Your task to perform on an android device: Show me popular games on the Play Store Image 0: 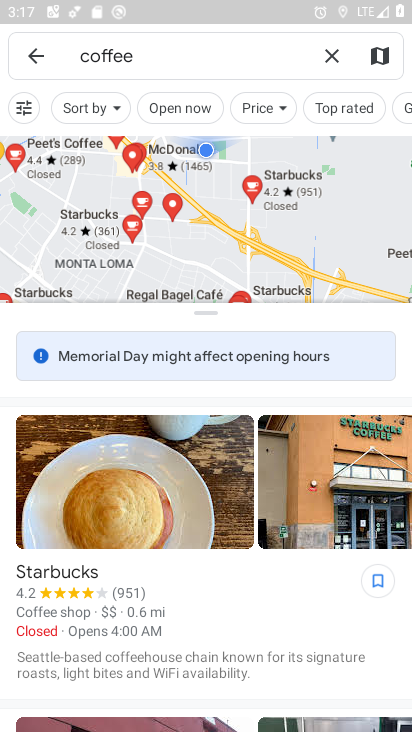
Step 0: press home button
Your task to perform on an android device: Show me popular games on the Play Store Image 1: 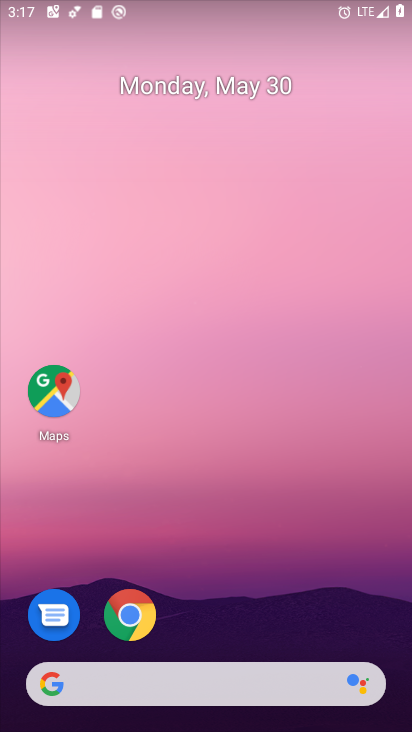
Step 1: drag from (262, 527) to (294, 20)
Your task to perform on an android device: Show me popular games on the Play Store Image 2: 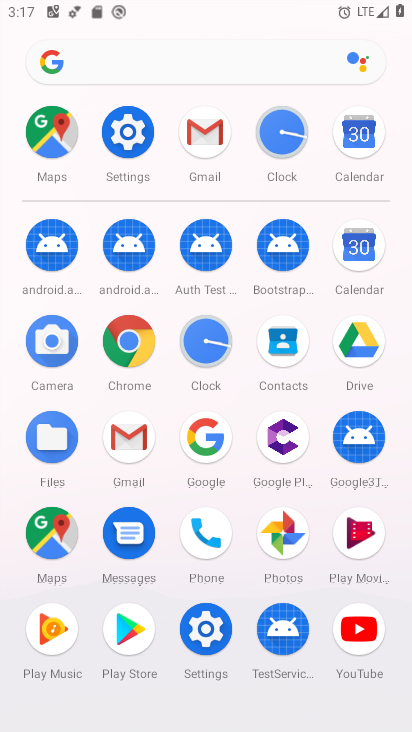
Step 2: click (139, 620)
Your task to perform on an android device: Show me popular games on the Play Store Image 3: 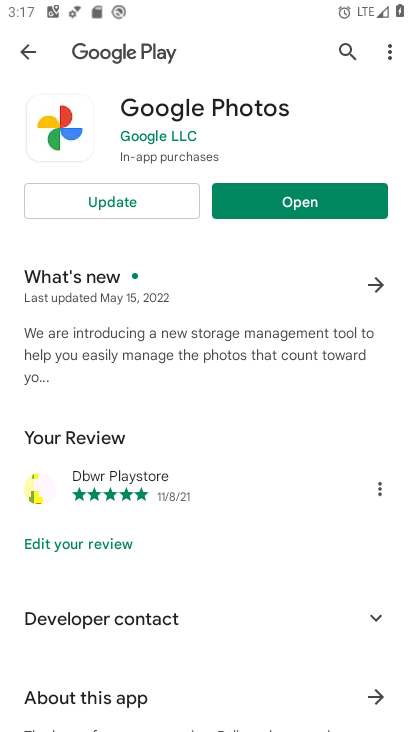
Step 3: click (18, 40)
Your task to perform on an android device: Show me popular games on the Play Store Image 4: 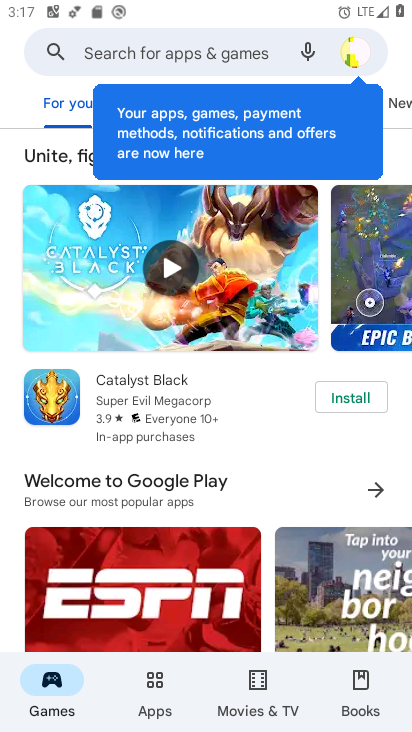
Step 4: click (161, 671)
Your task to perform on an android device: Show me popular games on the Play Store Image 5: 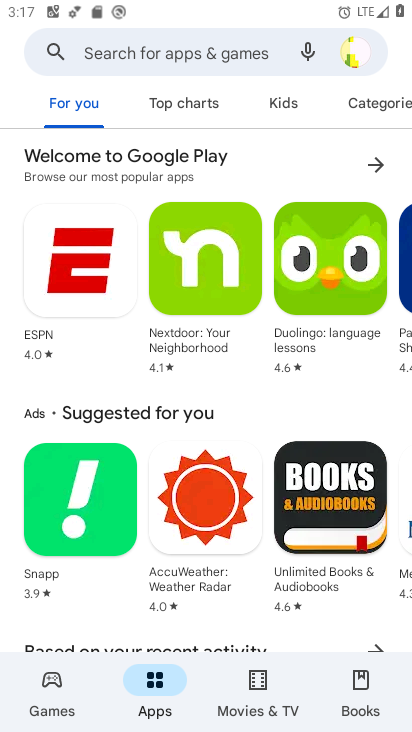
Step 5: click (52, 691)
Your task to perform on an android device: Show me popular games on the Play Store Image 6: 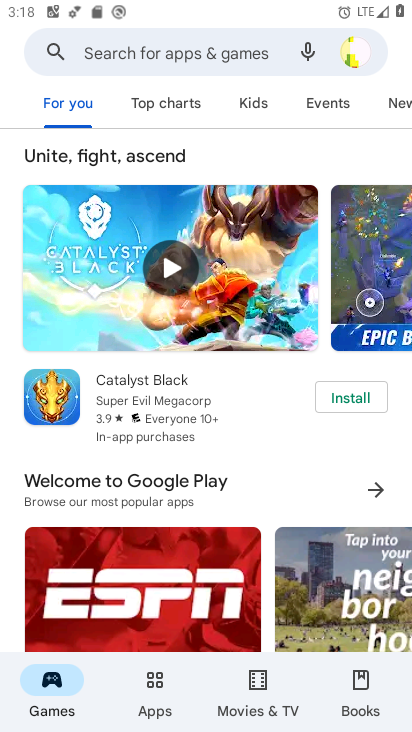
Step 6: click (190, 38)
Your task to perform on an android device: Show me popular games on the Play Store Image 7: 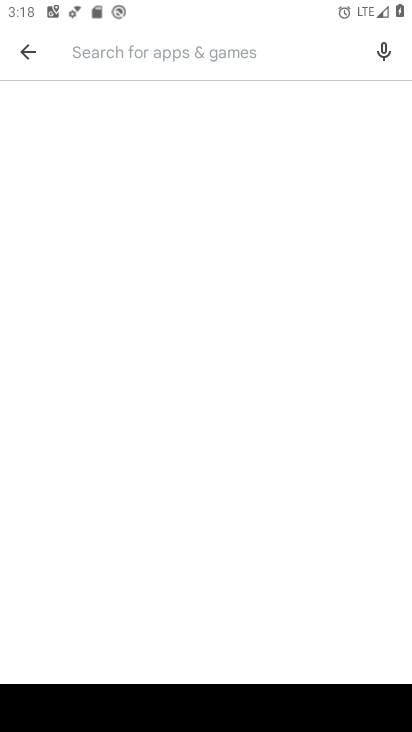
Step 7: type "popular"
Your task to perform on an android device: Show me popular games on the Play Store Image 8: 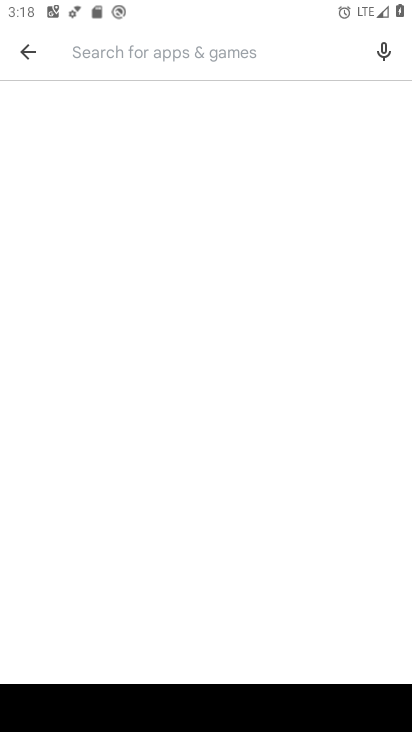
Step 8: click (20, 48)
Your task to perform on an android device: Show me popular games on the Play Store Image 9: 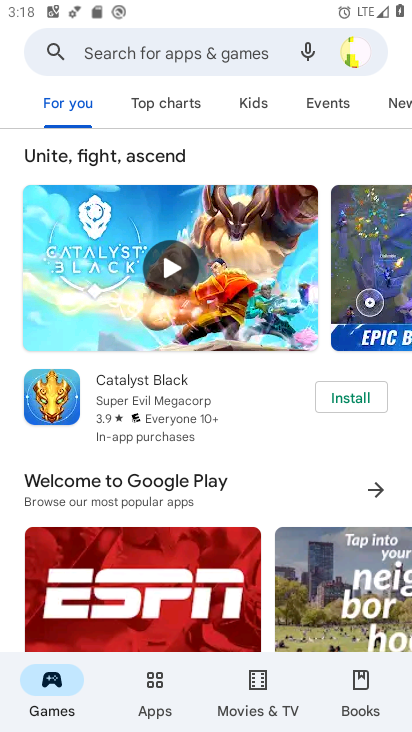
Step 9: drag from (235, 499) to (287, 63)
Your task to perform on an android device: Show me popular games on the Play Store Image 10: 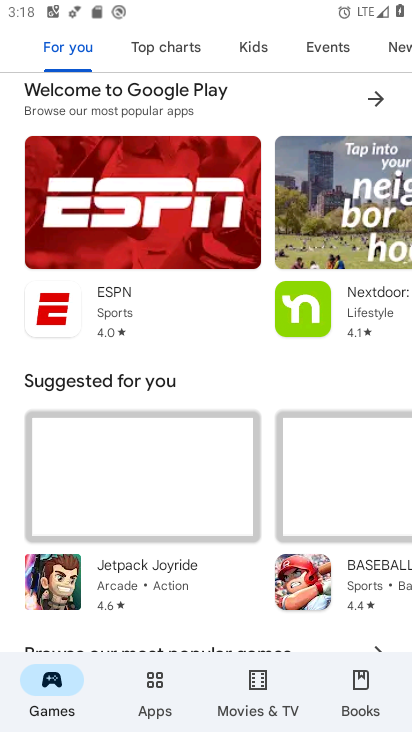
Step 10: drag from (293, 502) to (310, 137)
Your task to perform on an android device: Show me popular games on the Play Store Image 11: 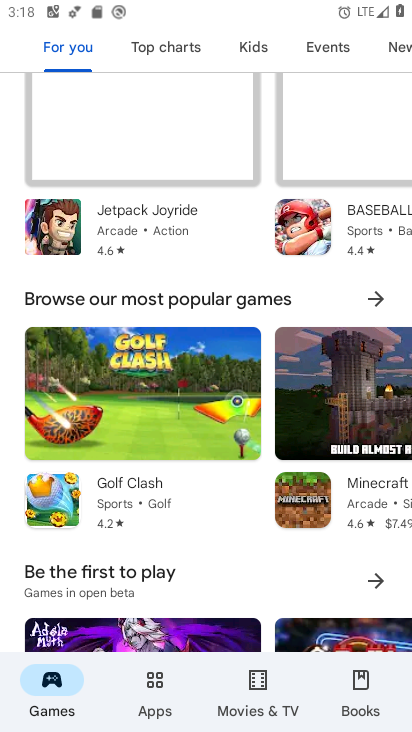
Step 11: click (377, 294)
Your task to perform on an android device: Show me popular games on the Play Store Image 12: 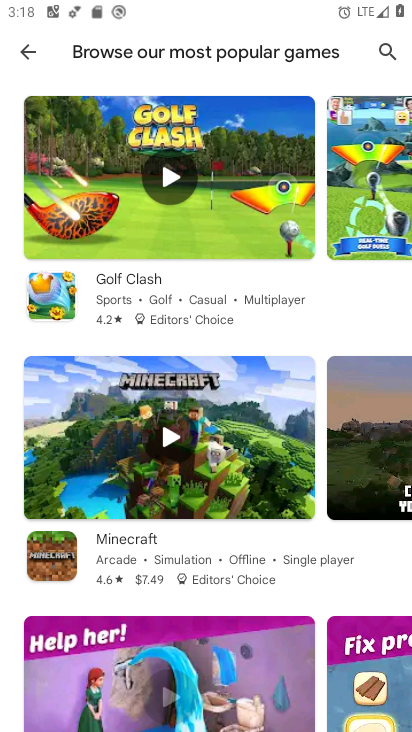
Step 12: task complete